Your task to perform on an android device: turn pop-ups off in chrome Image 0: 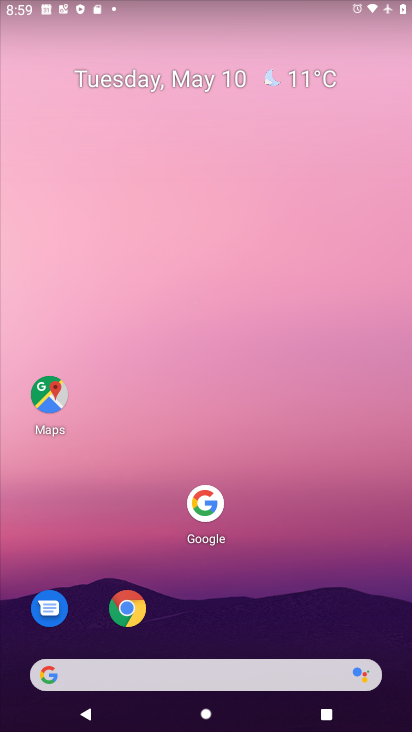
Step 0: drag from (184, 674) to (297, 176)
Your task to perform on an android device: turn pop-ups off in chrome Image 1: 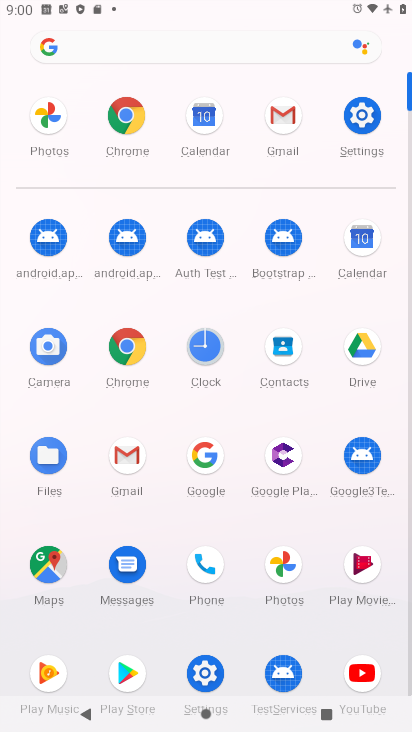
Step 1: click (123, 120)
Your task to perform on an android device: turn pop-ups off in chrome Image 2: 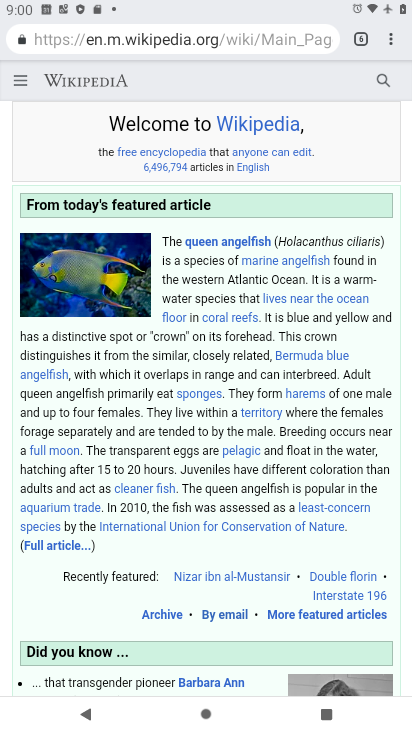
Step 2: drag from (384, 42) to (283, 467)
Your task to perform on an android device: turn pop-ups off in chrome Image 3: 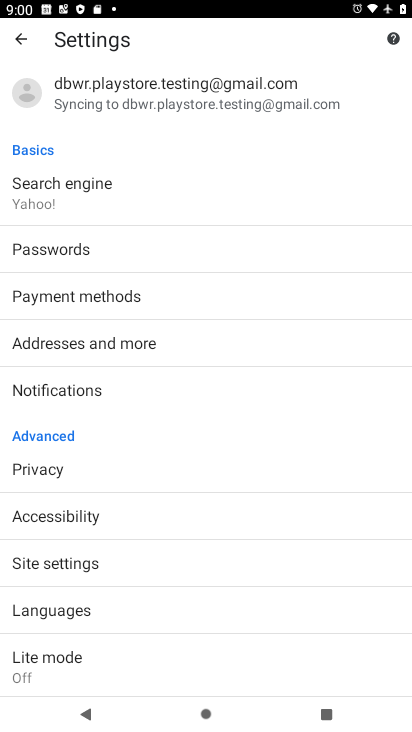
Step 3: click (93, 561)
Your task to perform on an android device: turn pop-ups off in chrome Image 4: 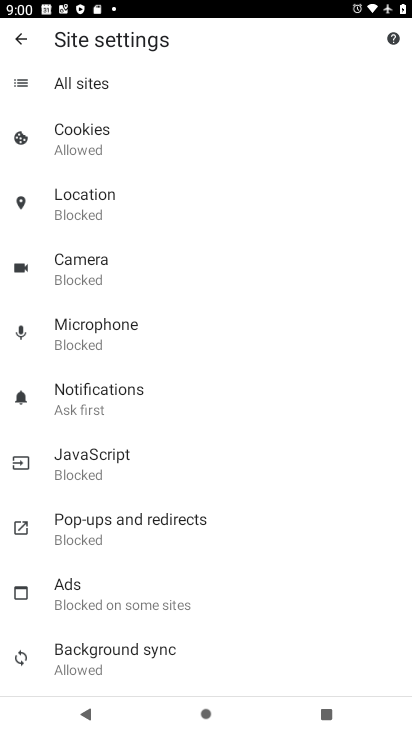
Step 4: click (134, 527)
Your task to perform on an android device: turn pop-ups off in chrome Image 5: 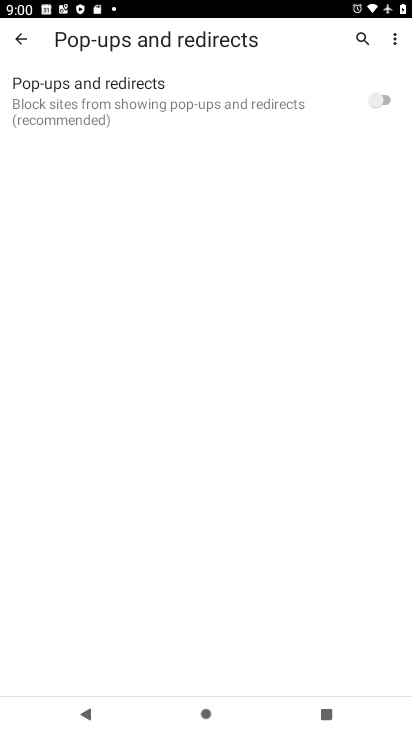
Step 5: task complete